Your task to perform on an android device: Open privacy settings Image 0: 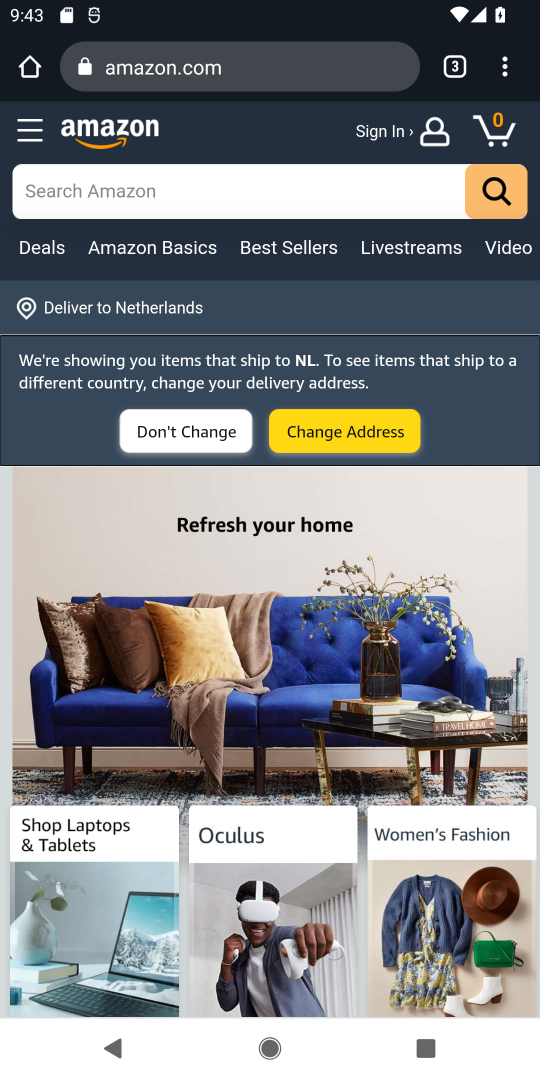
Step 0: click (503, 64)
Your task to perform on an android device: Open privacy settings Image 1: 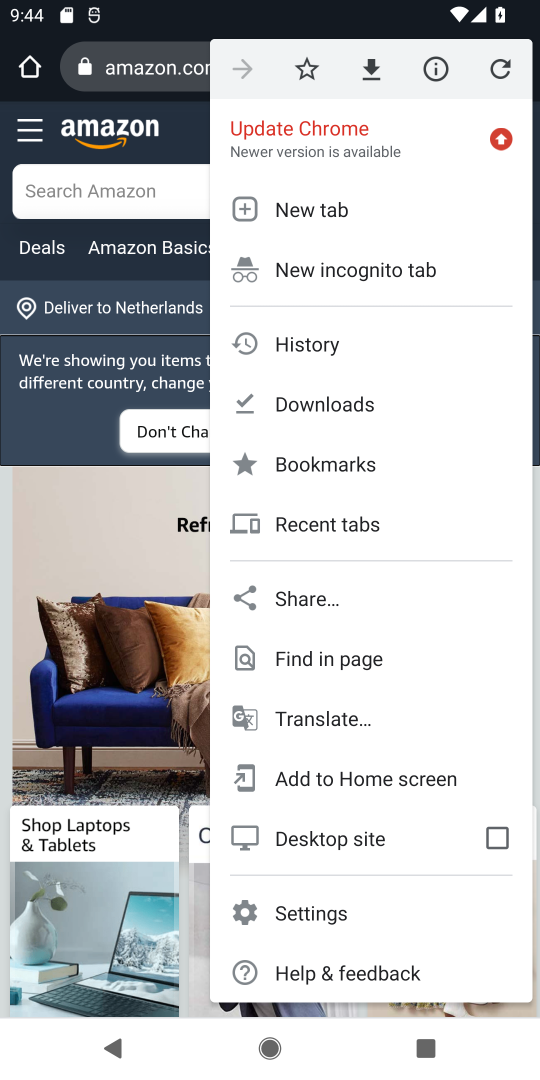
Step 1: click (326, 915)
Your task to perform on an android device: Open privacy settings Image 2: 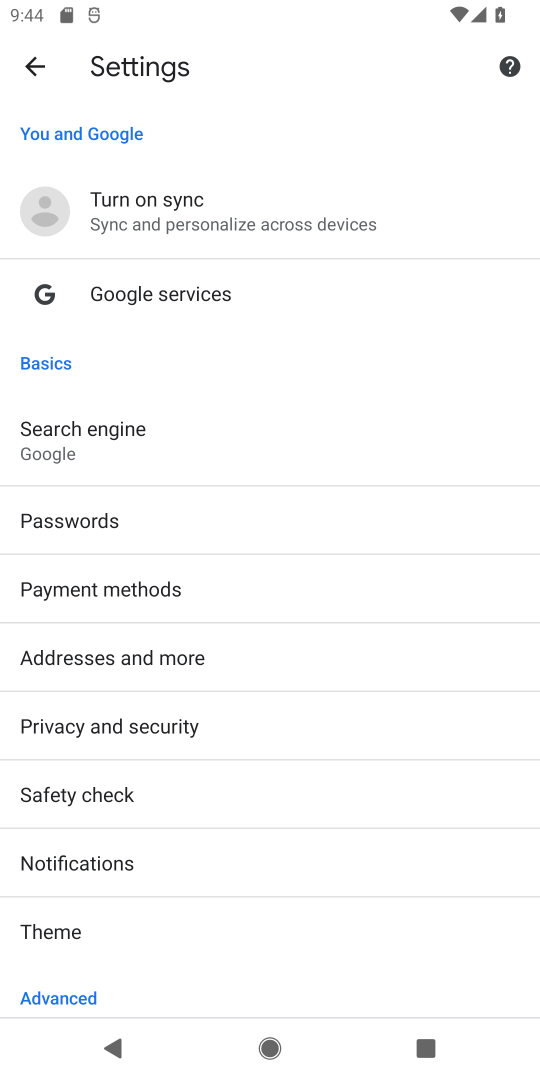
Step 2: click (114, 729)
Your task to perform on an android device: Open privacy settings Image 3: 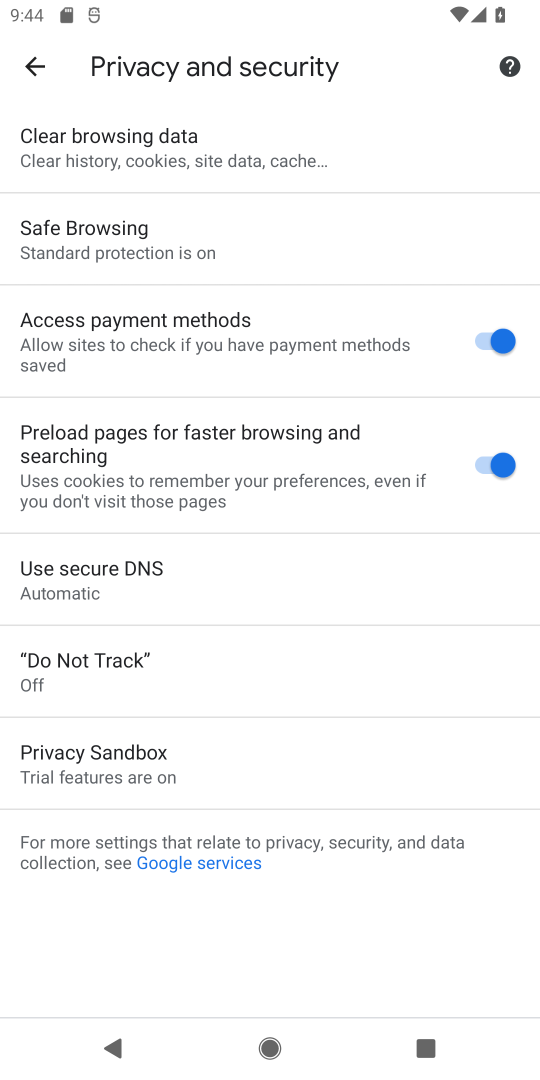
Step 3: task complete